Your task to perform on an android device: clear history in the chrome app Image 0: 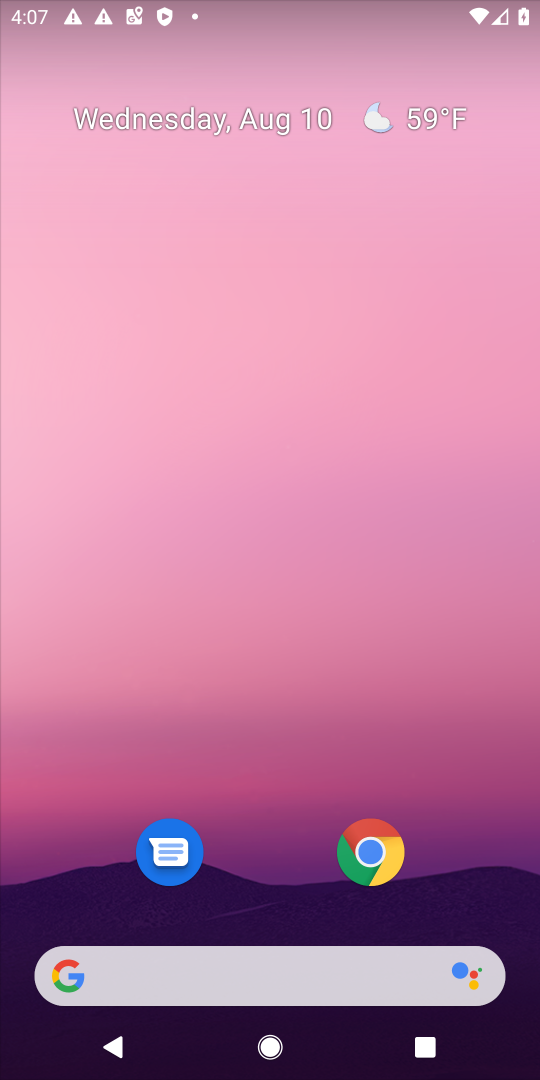
Step 0: drag from (509, 885) to (192, 241)
Your task to perform on an android device: clear history in the chrome app Image 1: 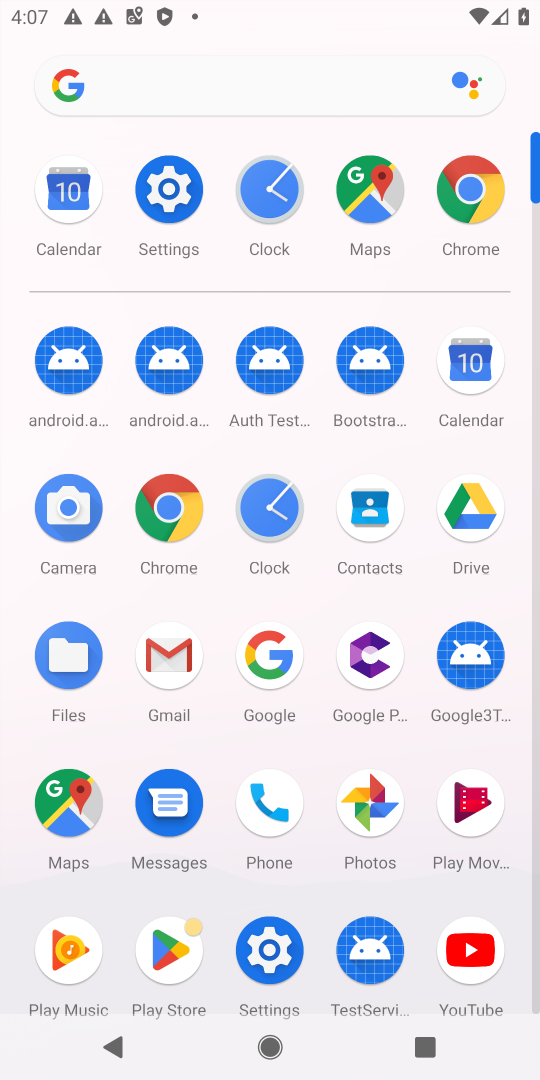
Step 1: click (181, 509)
Your task to perform on an android device: clear history in the chrome app Image 2: 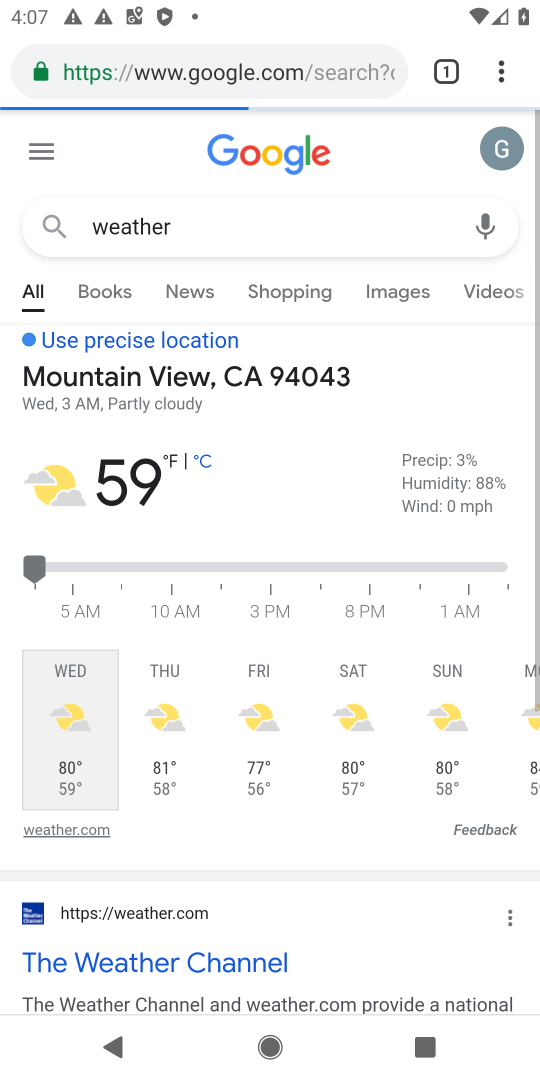
Step 2: drag from (506, 66) to (288, 391)
Your task to perform on an android device: clear history in the chrome app Image 3: 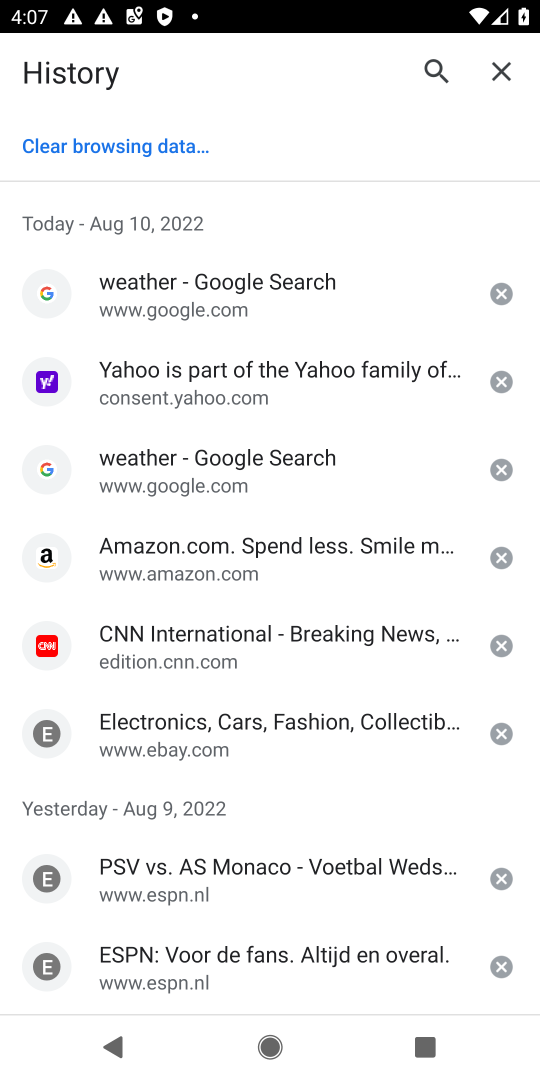
Step 3: click (61, 143)
Your task to perform on an android device: clear history in the chrome app Image 4: 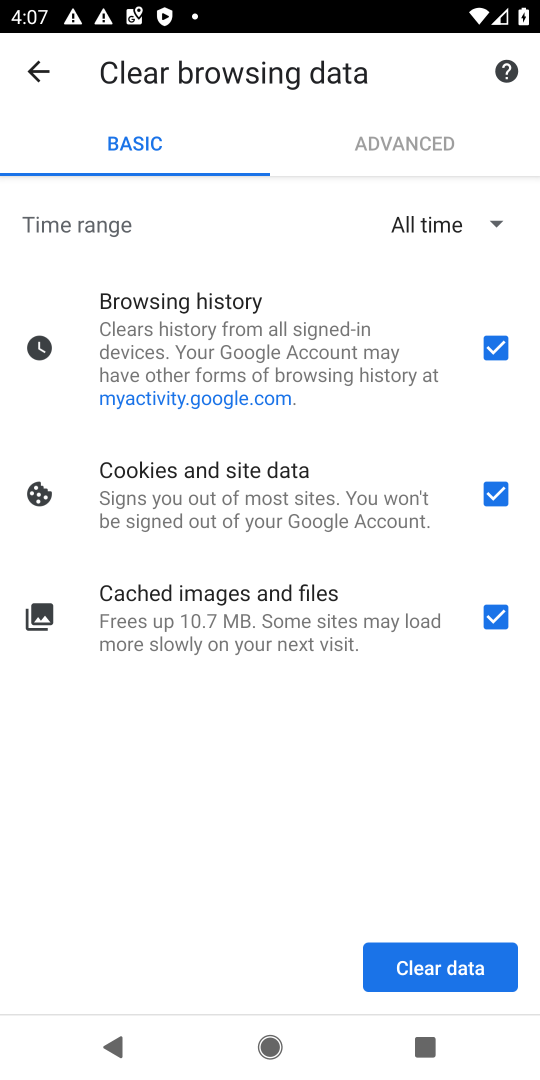
Step 4: click (476, 974)
Your task to perform on an android device: clear history in the chrome app Image 5: 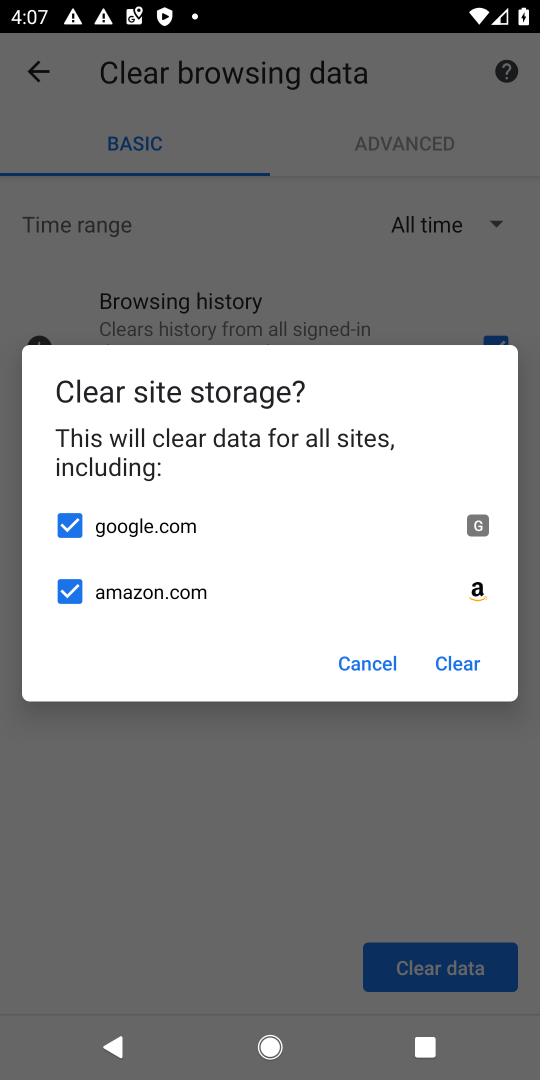
Step 5: click (471, 665)
Your task to perform on an android device: clear history in the chrome app Image 6: 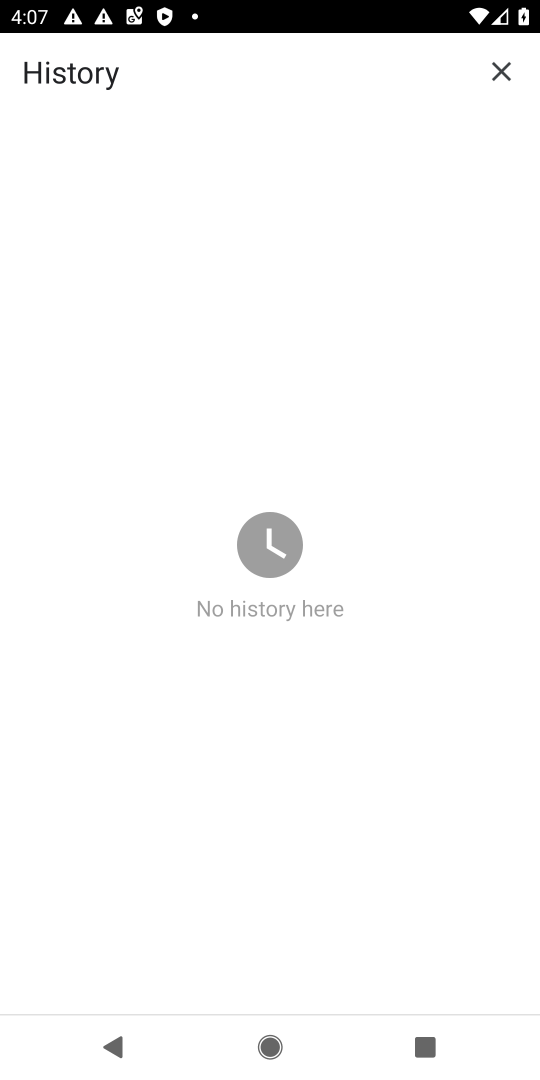
Step 6: task complete